Your task to perform on an android device: Open Youtube and go to "Your channel" Image 0: 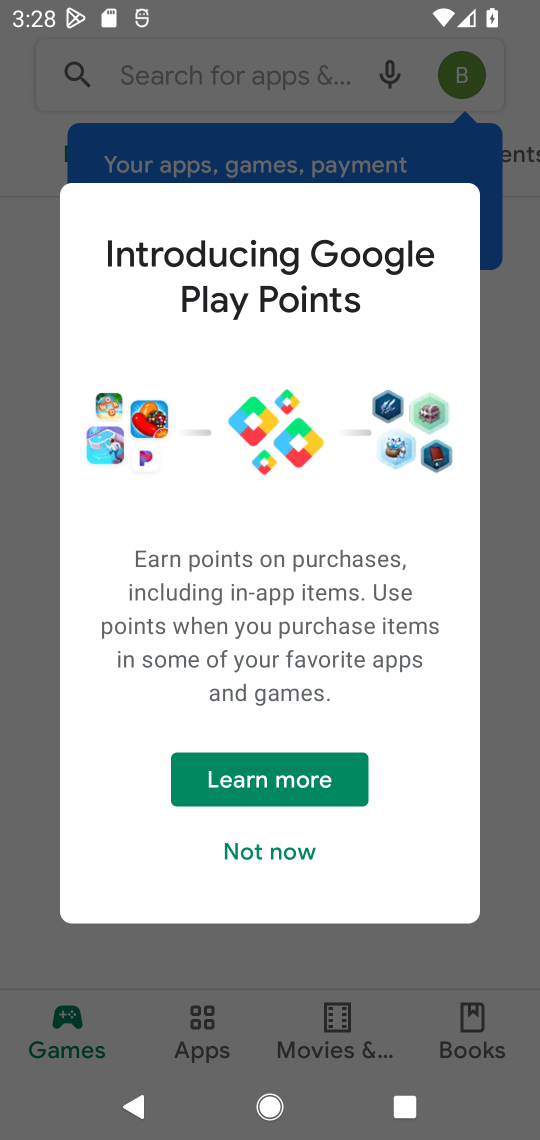
Step 0: click (249, 858)
Your task to perform on an android device: Open Youtube and go to "Your channel" Image 1: 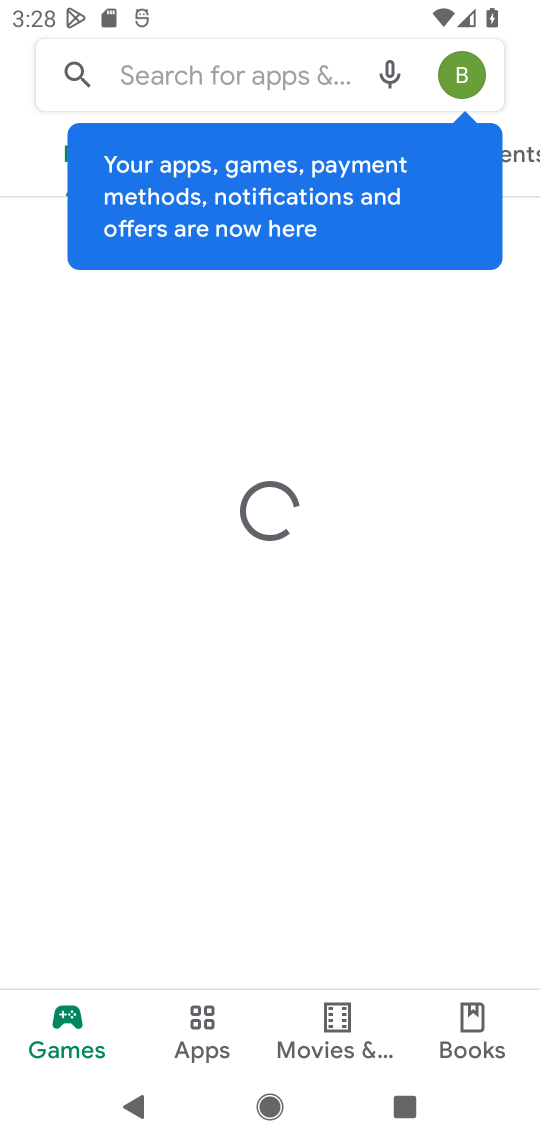
Step 1: task complete